Your task to perform on an android device: Open a new tab in the chrome app Image 0: 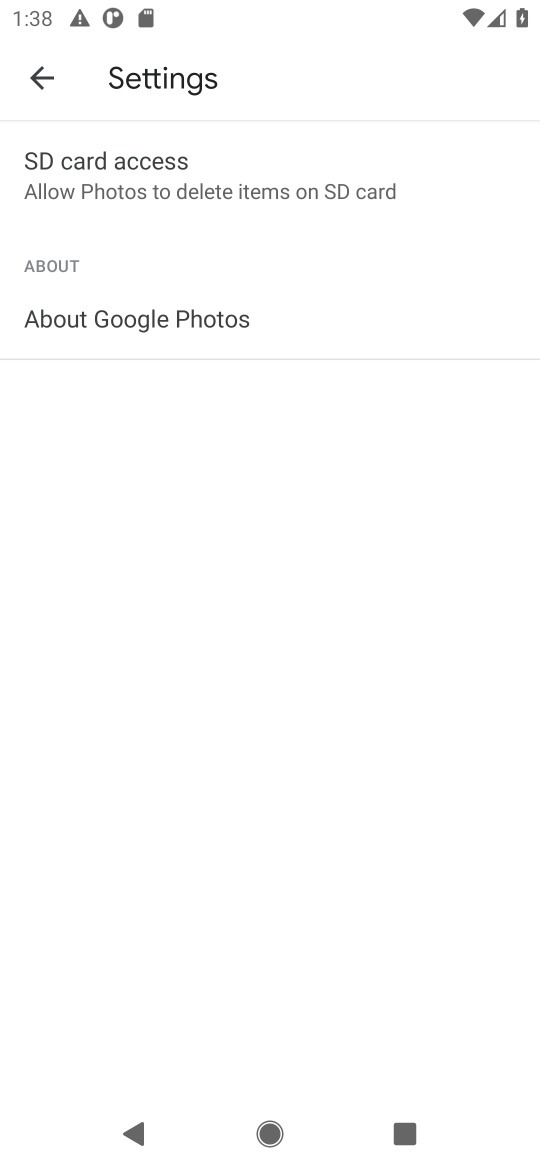
Step 0: press home button
Your task to perform on an android device: Open a new tab in the chrome app Image 1: 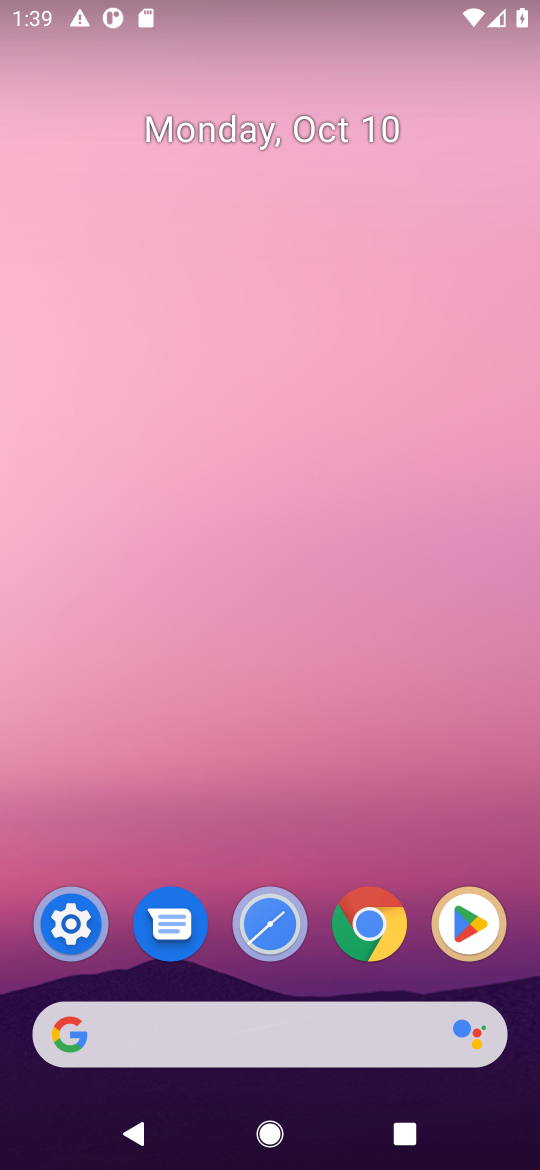
Step 1: click (380, 921)
Your task to perform on an android device: Open a new tab in the chrome app Image 2: 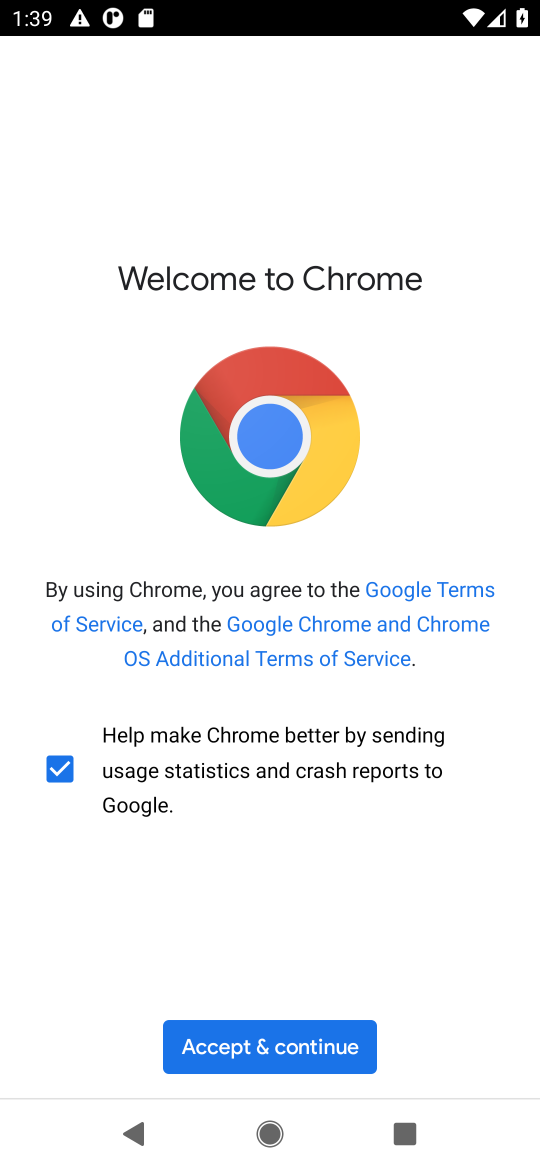
Step 2: click (303, 1043)
Your task to perform on an android device: Open a new tab in the chrome app Image 3: 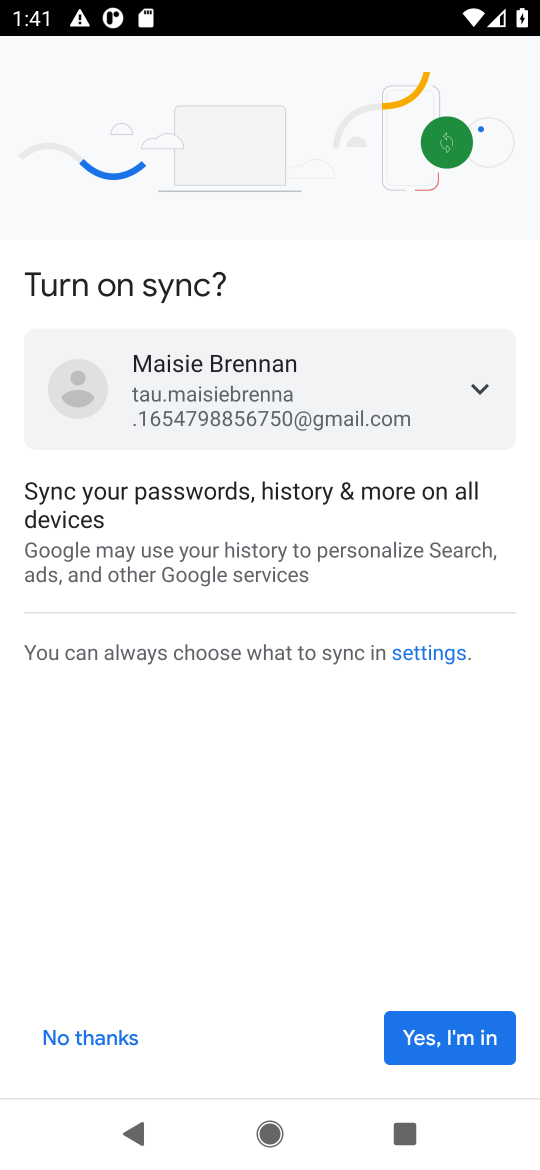
Step 3: click (463, 1048)
Your task to perform on an android device: Open a new tab in the chrome app Image 4: 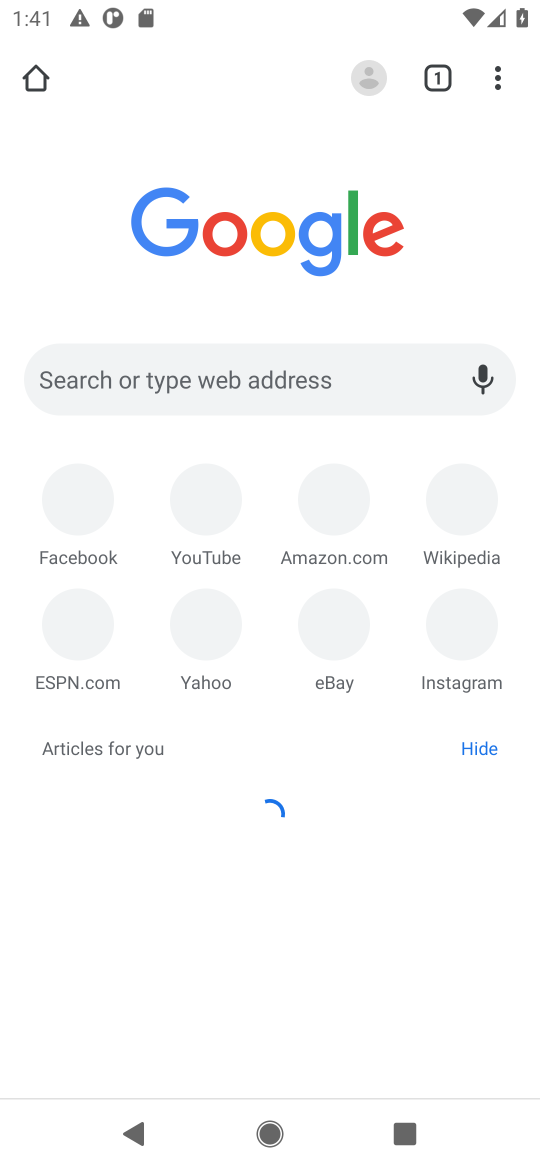
Step 4: click (195, 364)
Your task to perform on an android device: Open a new tab in the chrome app Image 5: 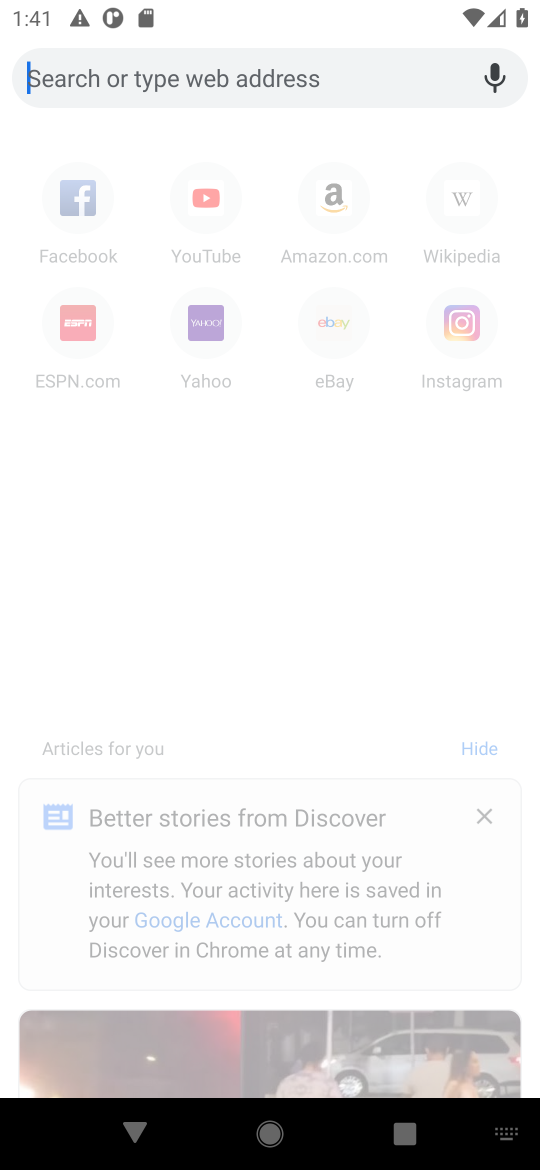
Step 5: task complete